Your task to perform on an android device: search for starred emails in the gmail app Image 0: 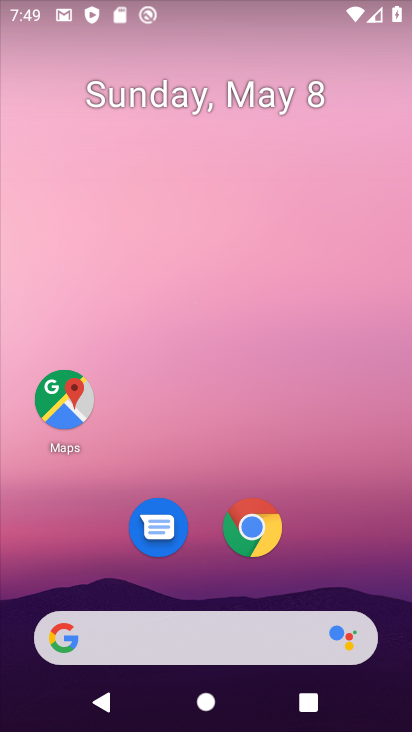
Step 0: click (317, 16)
Your task to perform on an android device: search for starred emails in the gmail app Image 1: 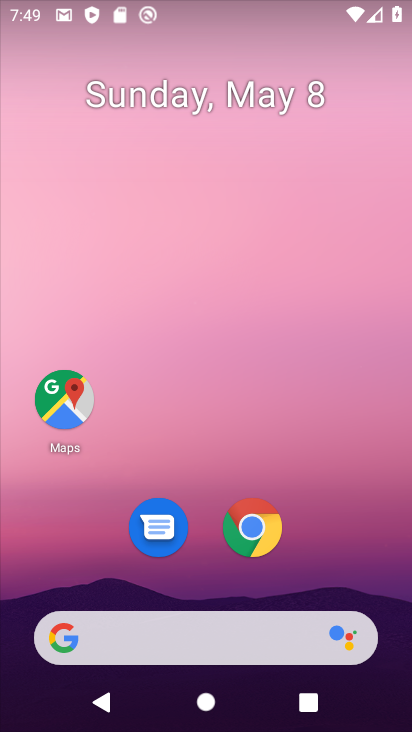
Step 1: drag from (393, 595) to (271, 24)
Your task to perform on an android device: search for starred emails in the gmail app Image 2: 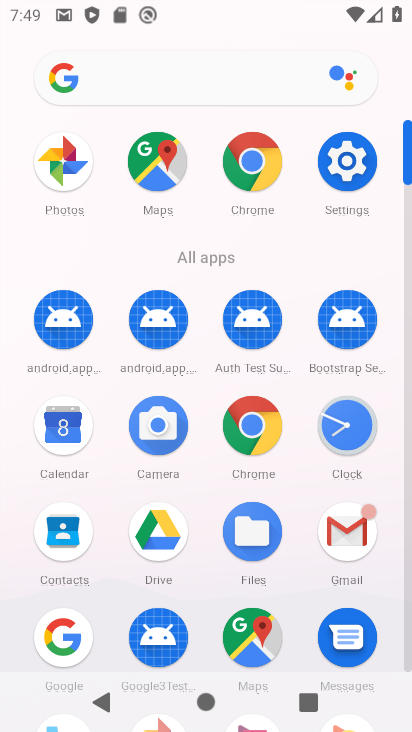
Step 2: click (350, 527)
Your task to perform on an android device: search for starred emails in the gmail app Image 3: 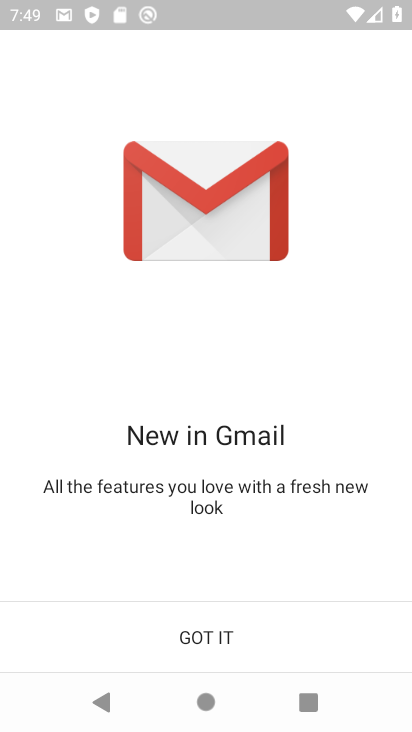
Step 3: click (226, 624)
Your task to perform on an android device: search for starred emails in the gmail app Image 4: 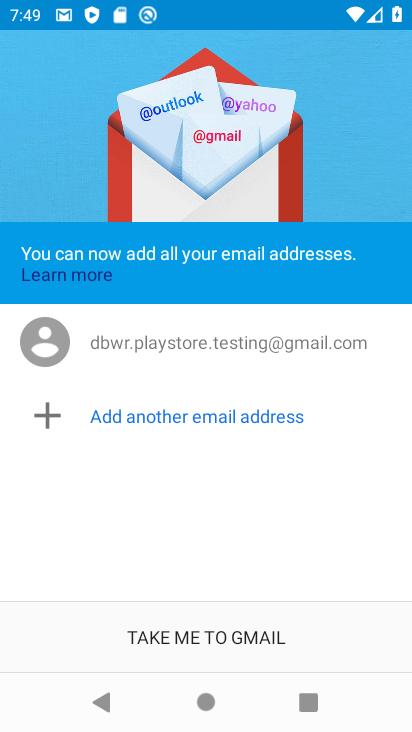
Step 4: click (226, 624)
Your task to perform on an android device: search for starred emails in the gmail app Image 5: 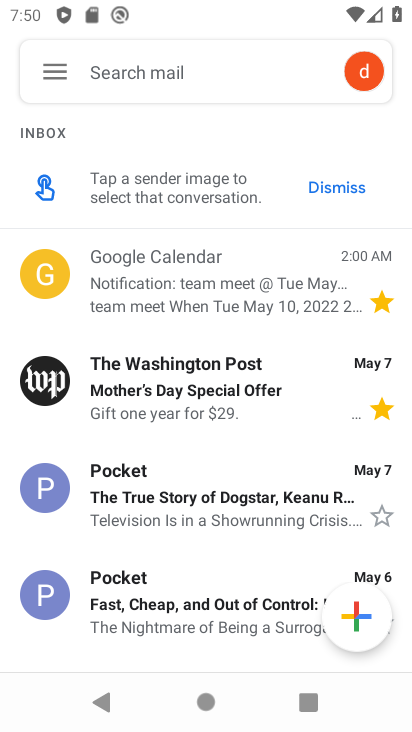
Step 5: click (57, 68)
Your task to perform on an android device: search for starred emails in the gmail app Image 6: 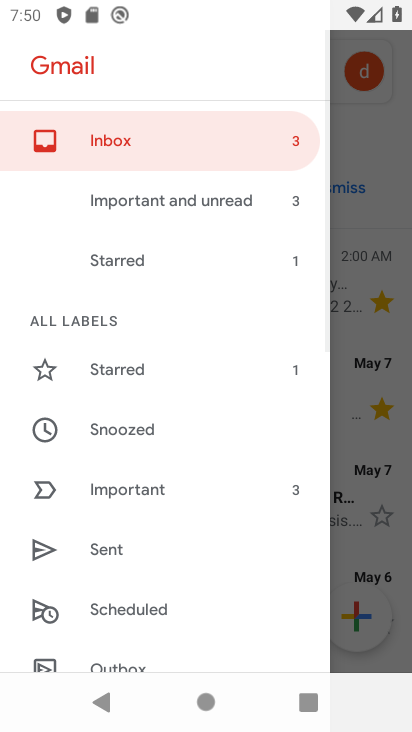
Step 6: drag from (154, 563) to (153, 136)
Your task to perform on an android device: search for starred emails in the gmail app Image 7: 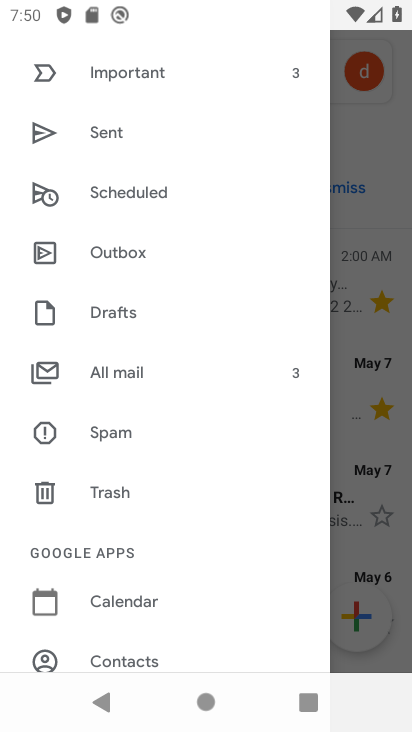
Step 7: drag from (185, 163) to (184, 465)
Your task to perform on an android device: search for starred emails in the gmail app Image 8: 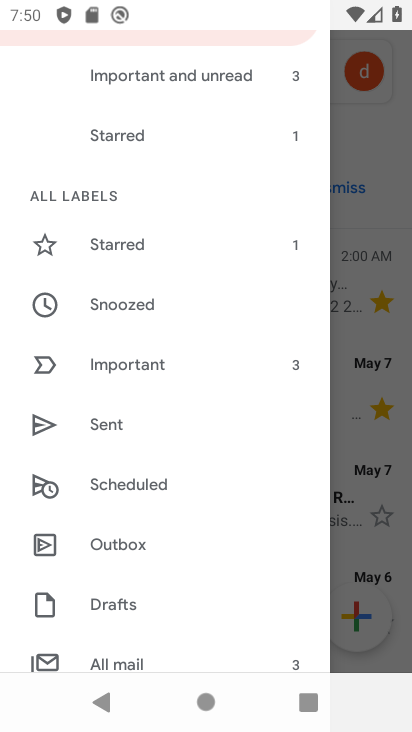
Step 8: click (131, 236)
Your task to perform on an android device: search for starred emails in the gmail app Image 9: 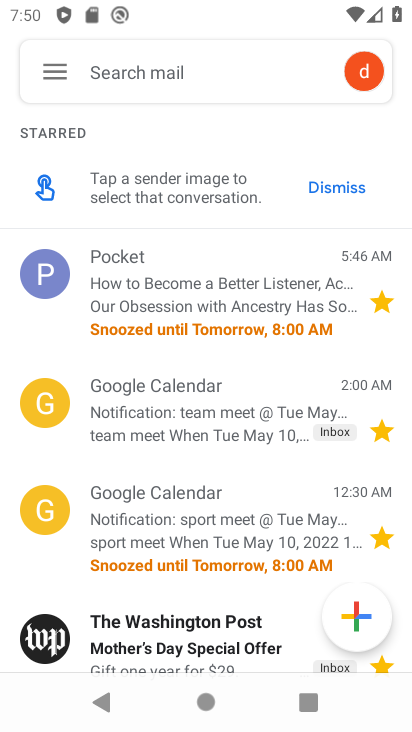
Step 9: task complete